Your task to perform on an android device: all mails in gmail Image 0: 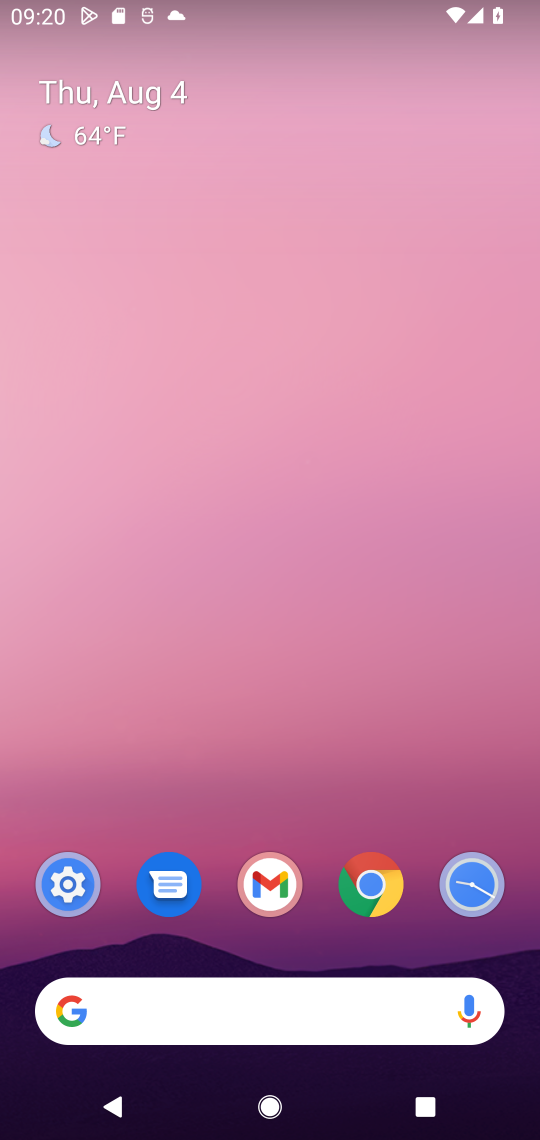
Step 0: click (240, 890)
Your task to perform on an android device: all mails in gmail Image 1: 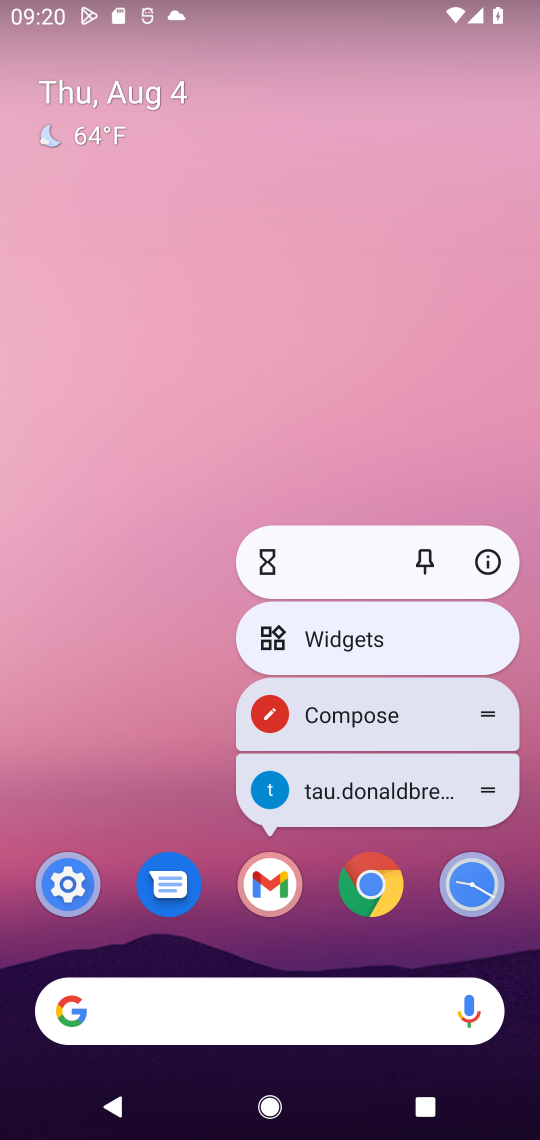
Step 1: click (240, 890)
Your task to perform on an android device: all mails in gmail Image 2: 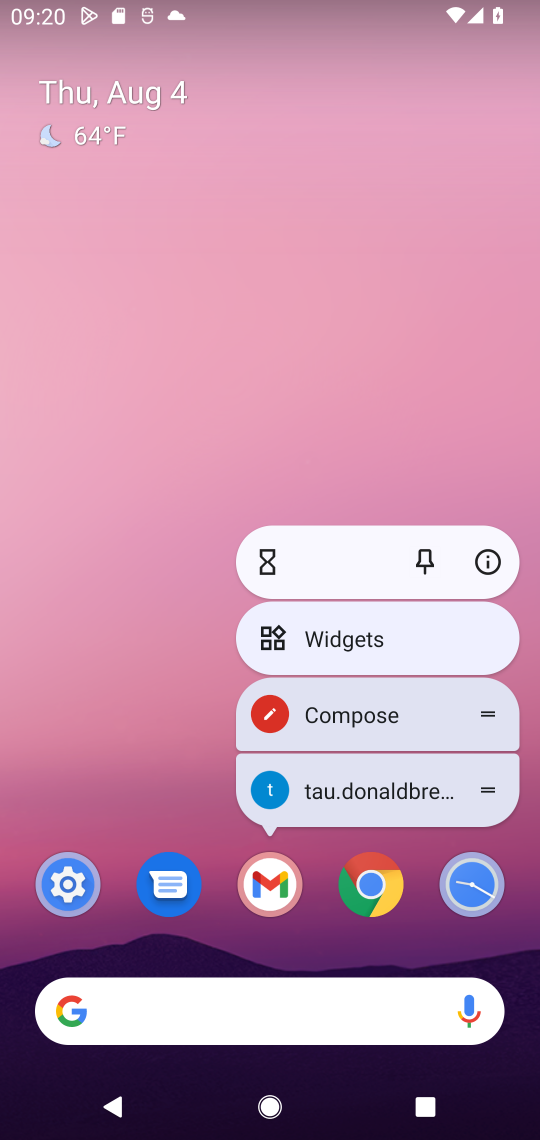
Step 2: click (240, 890)
Your task to perform on an android device: all mails in gmail Image 3: 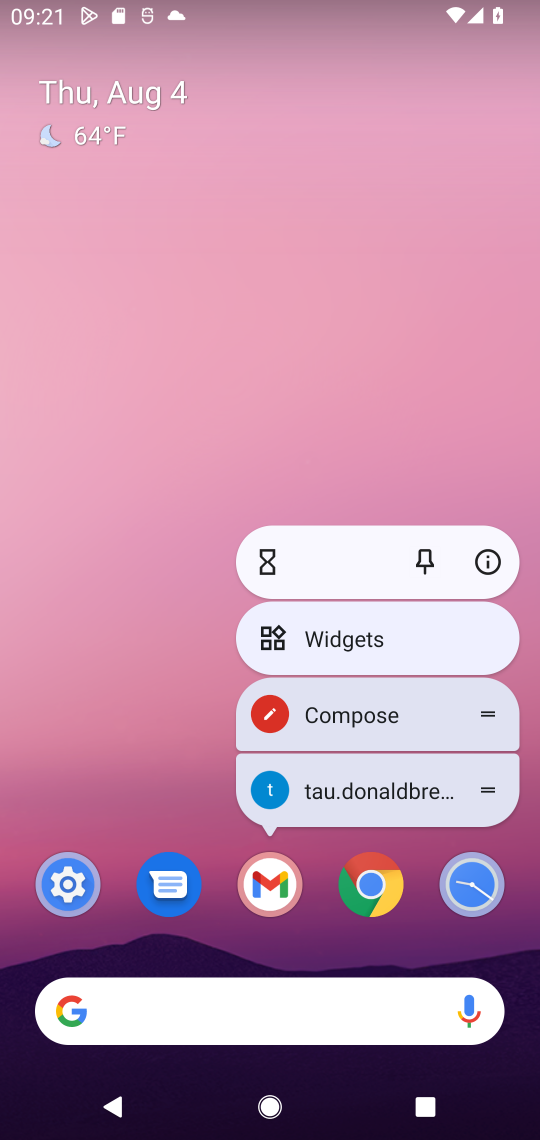
Step 3: click (253, 903)
Your task to perform on an android device: all mails in gmail Image 4: 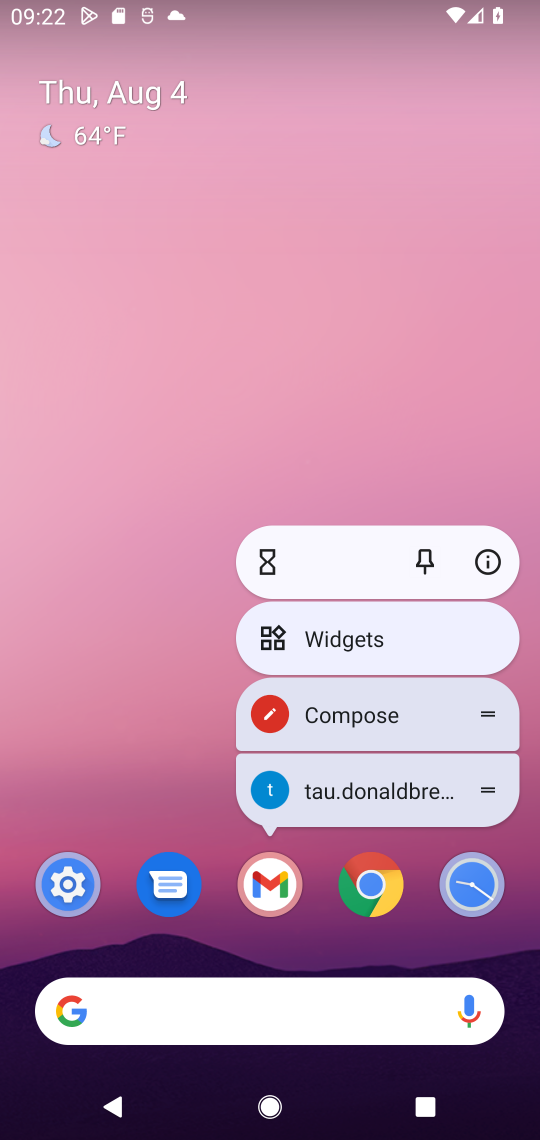
Step 4: click (244, 881)
Your task to perform on an android device: all mails in gmail Image 5: 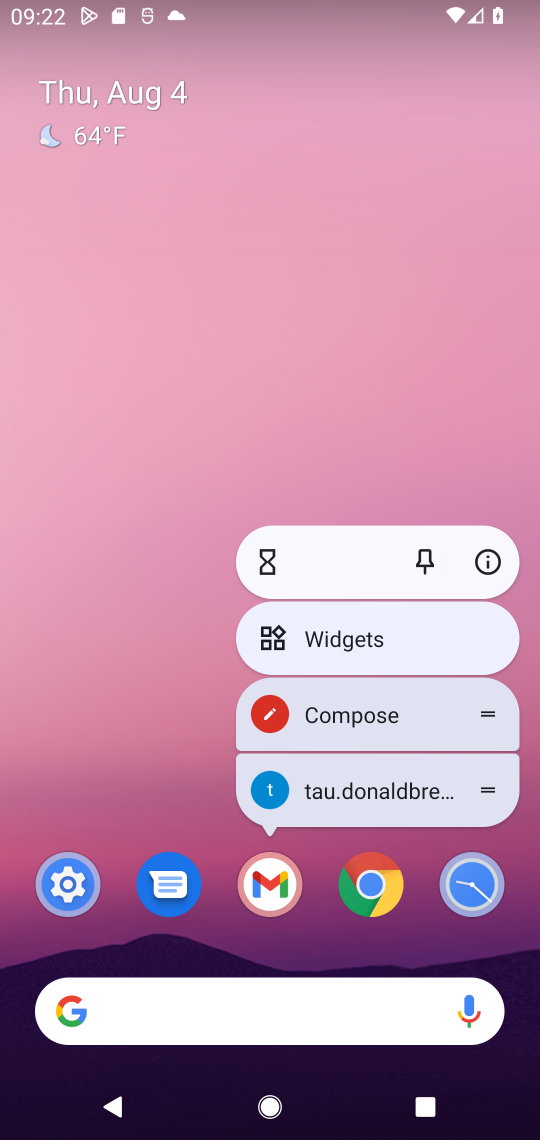
Step 5: click (371, 884)
Your task to perform on an android device: all mails in gmail Image 6: 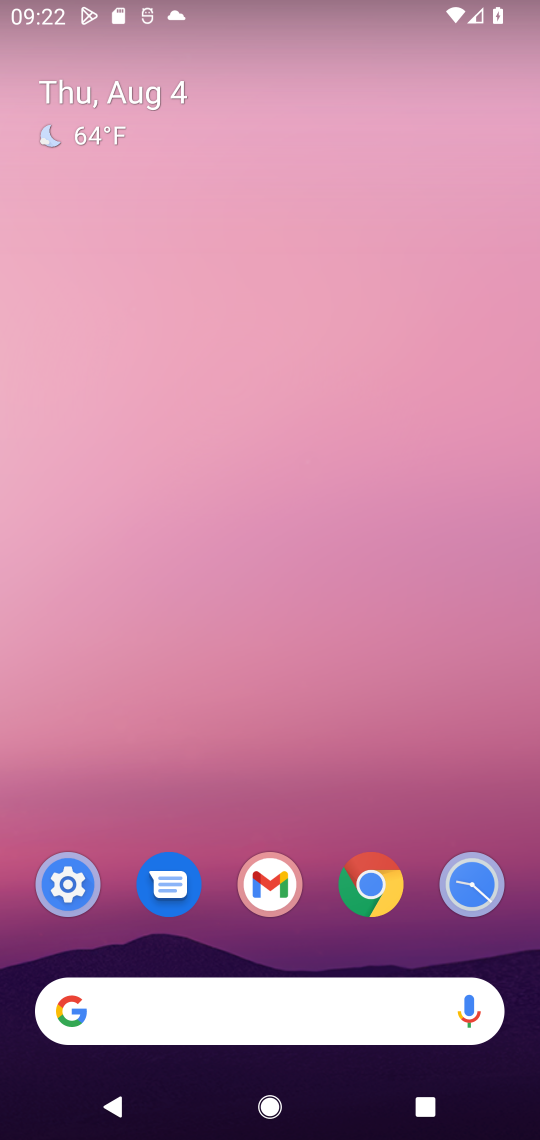
Step 6: click (371, 887)
Your task to perform on an android device: all mails in gmail Image 7: 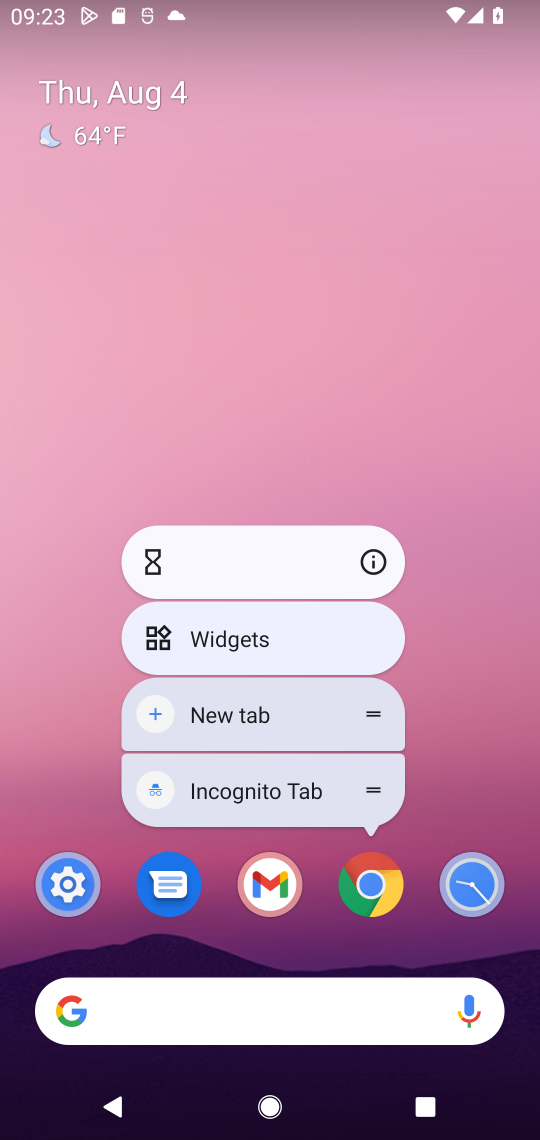
Step 7: click (279, 869)
Your task to perform on an android device: all mails in gmail Image 8: 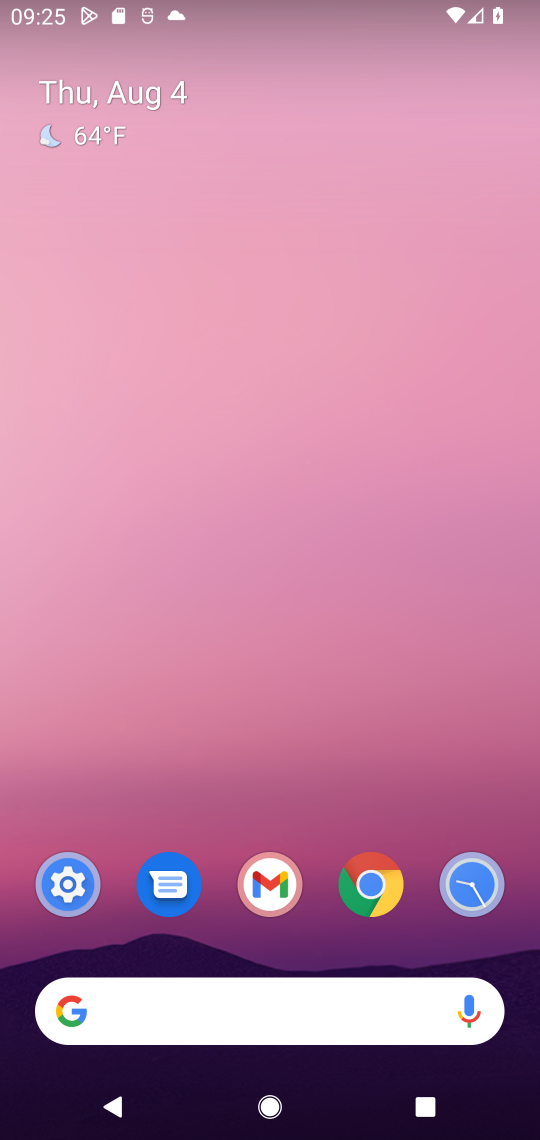
Step 8: click (281, 888)
Your task to perform on an android device: all mails in gmail Image 9: 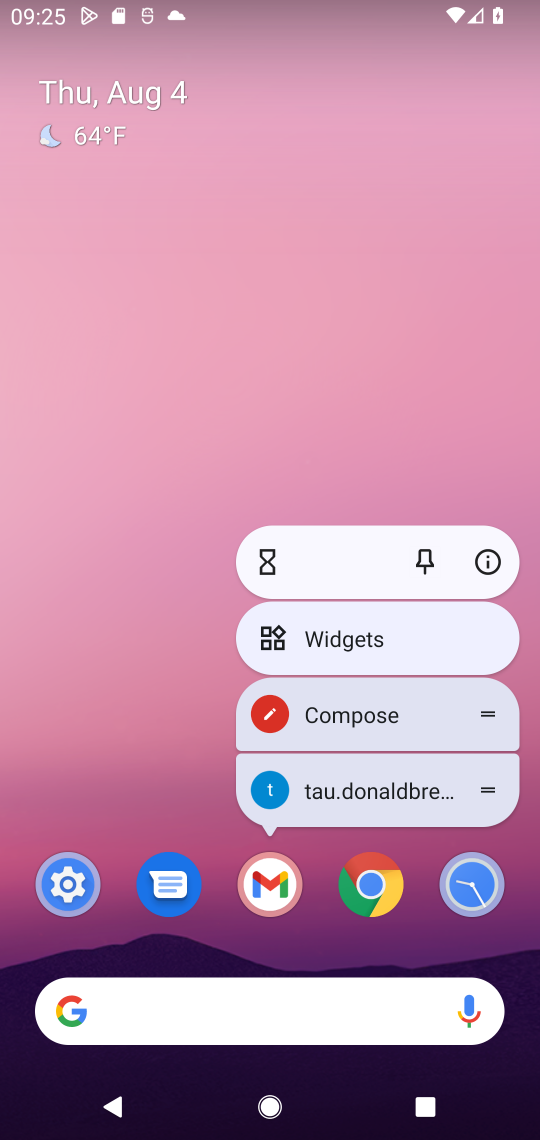
Step 9: click (265, 885)
Your task to perform on an android device: all mails in gmail Image 10: 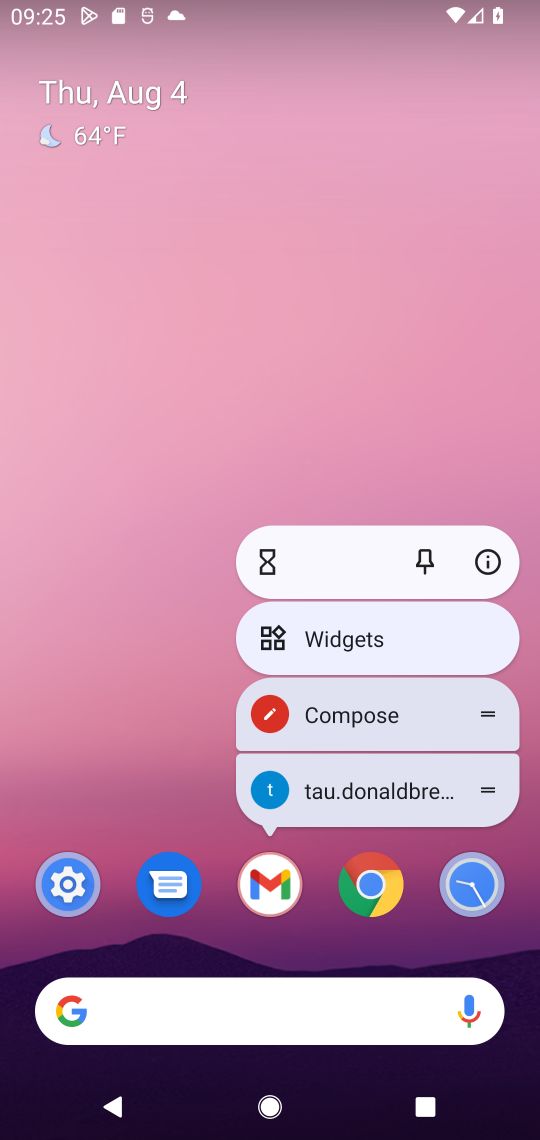
Step 10: click (265, 885)
Your task to perform on an android device: all mails in gmail Image 11: 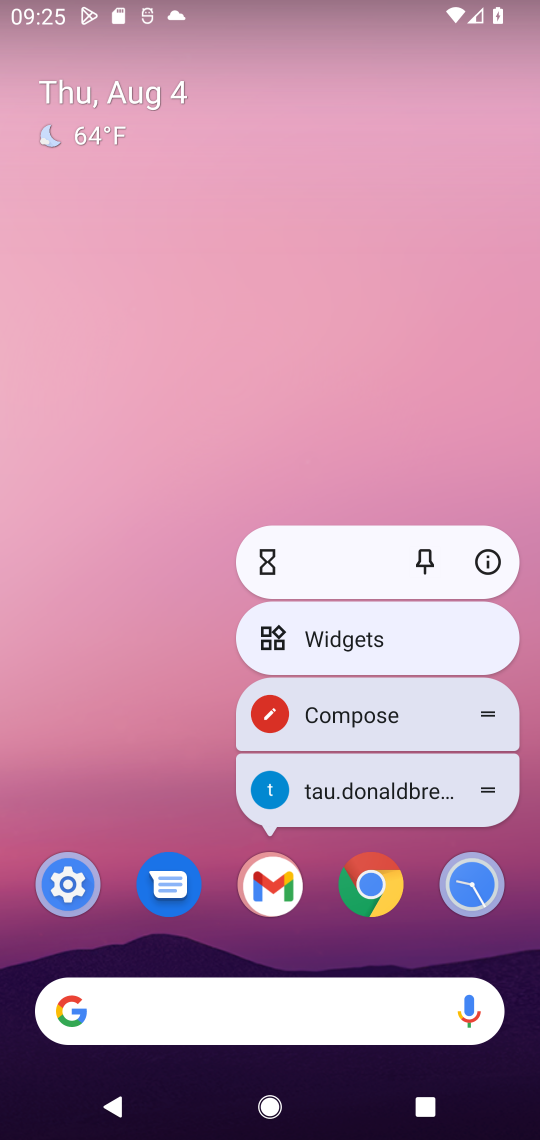
Step 11: click (268, 909)
Your task to perform on an android device: all mails in gmail Image 12: 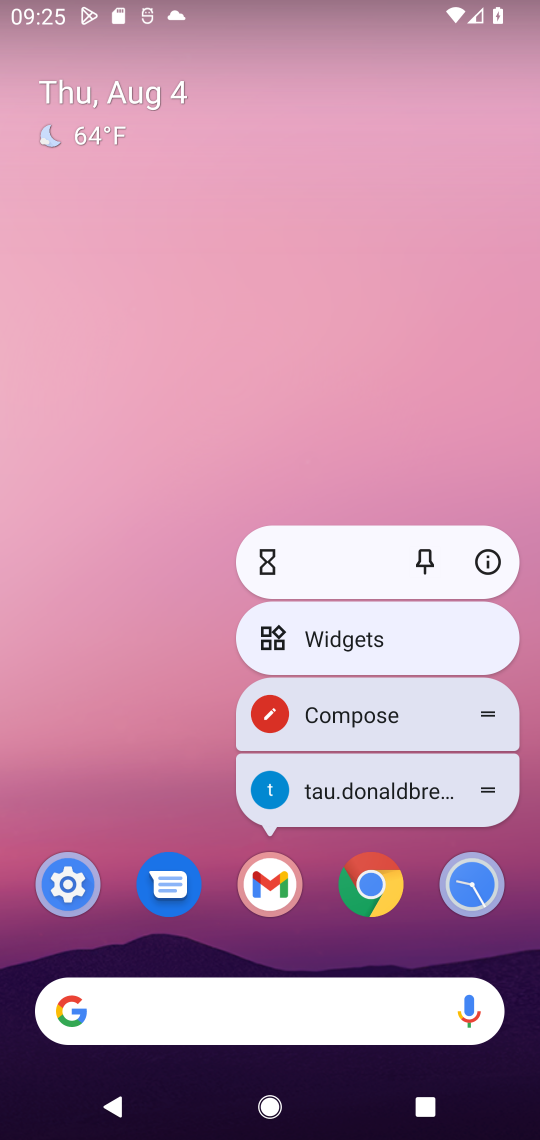
Step 12: click (268, 909)
Your task to perform on an android device: all mails in gmail Image 13: 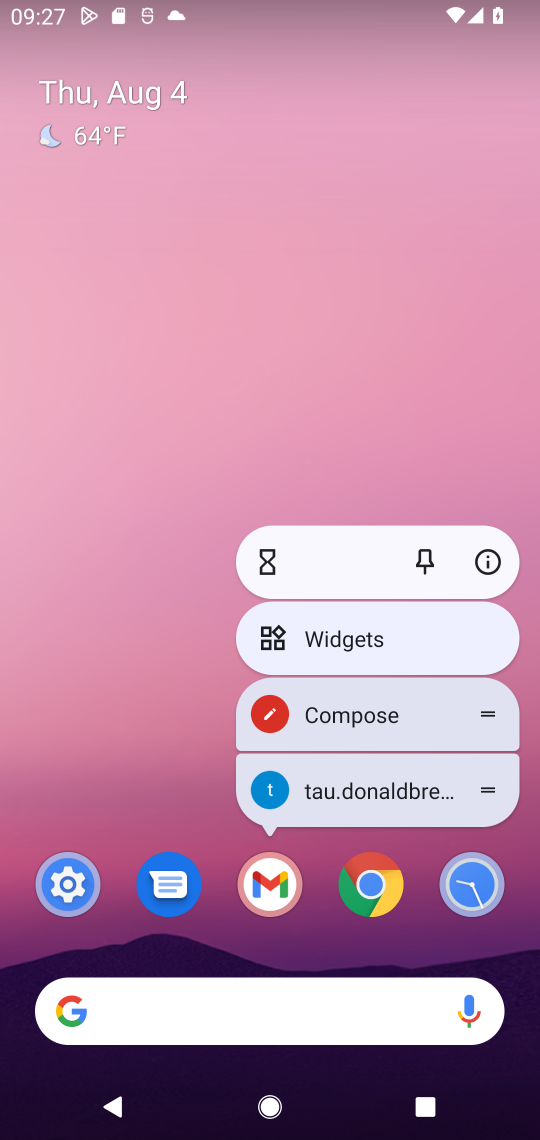
Step 13: click (266, 892)
Your task to perform on an android device: all mails in gmail Image 14: 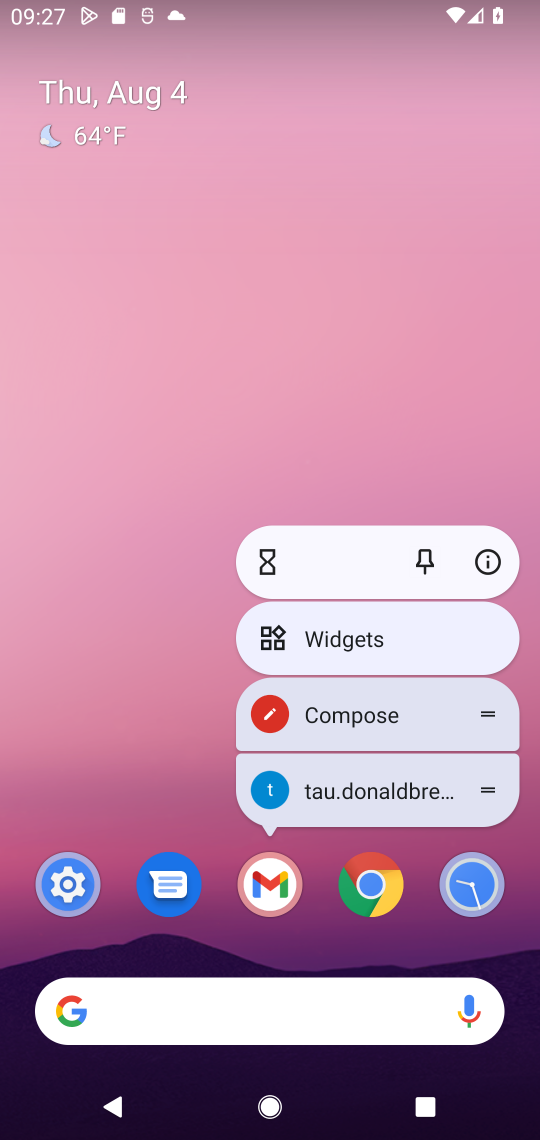
Step 14: click (264, 894)
Your task to perform on an android device: all mails in gmail Image 15: 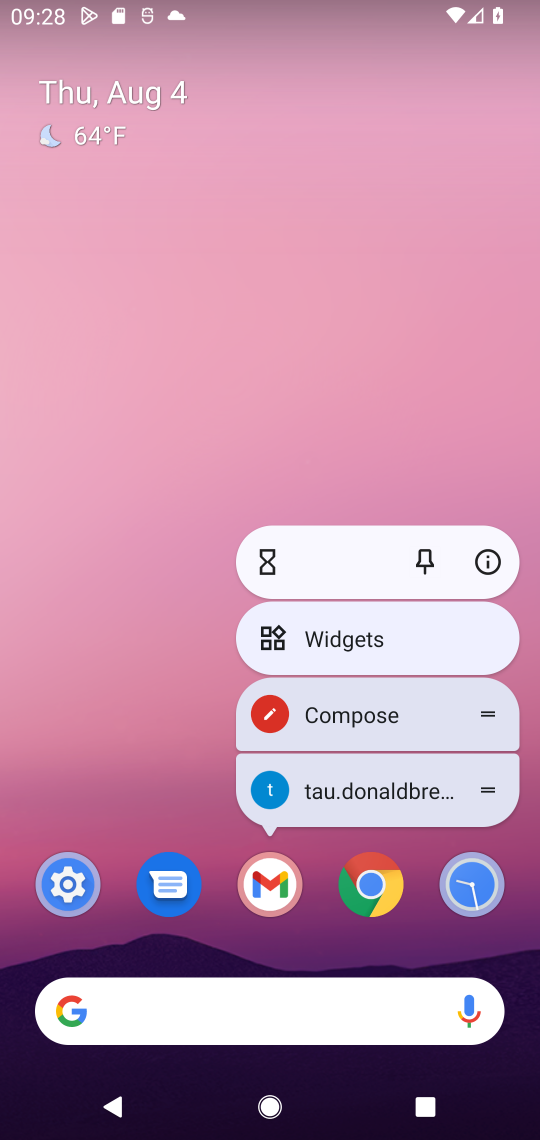
Step 15: click (264, 887)
Your task to perform on an android device: all mails in gmail Image 16: 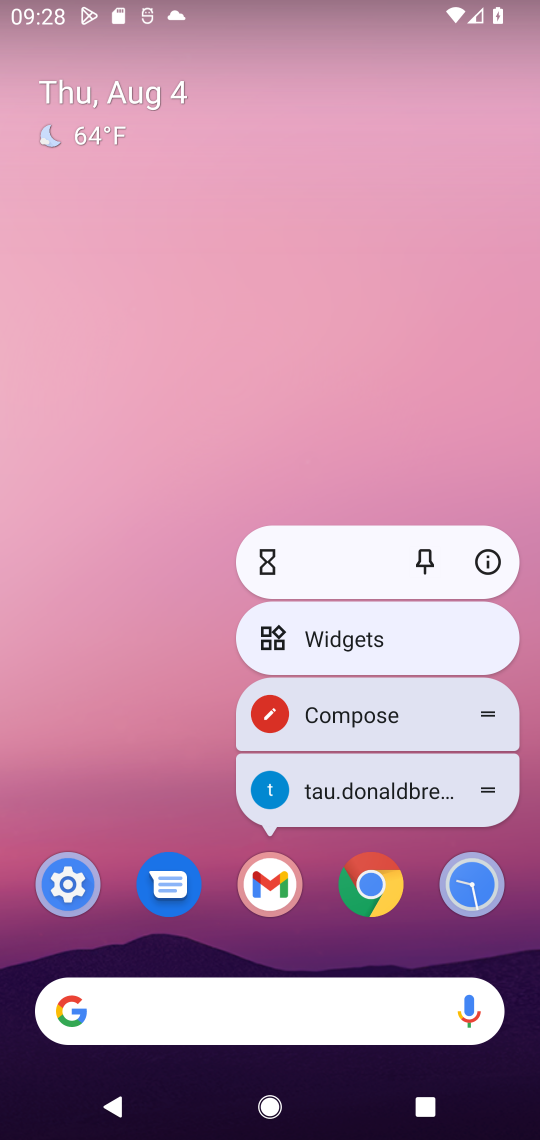
Step 16: click (264, 887)
Your task to perform on an android device: all mails in gmail Image 17: 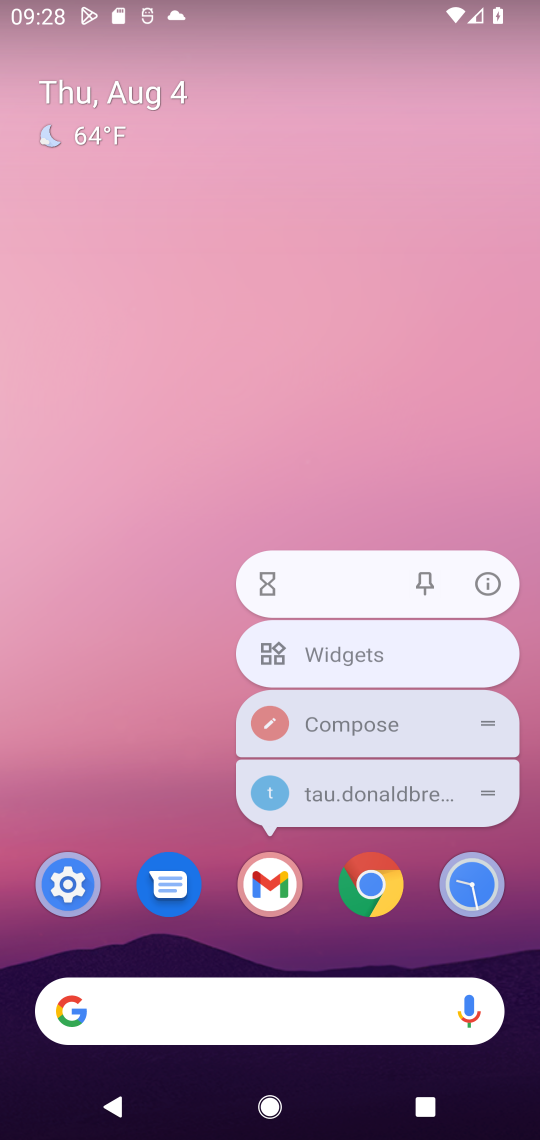
Step 17: click (264, 887)
Your task to perform on an android device: all mails in gmail Image 18: 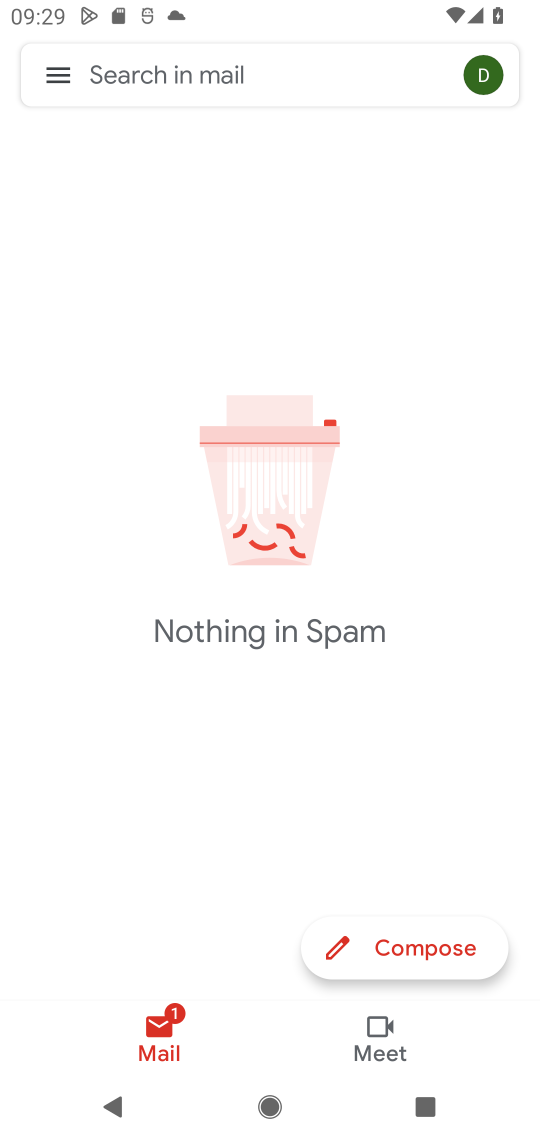
Step 18: click (71, 71)
Your task to perform on an android device: all mails in gmail Image 19: 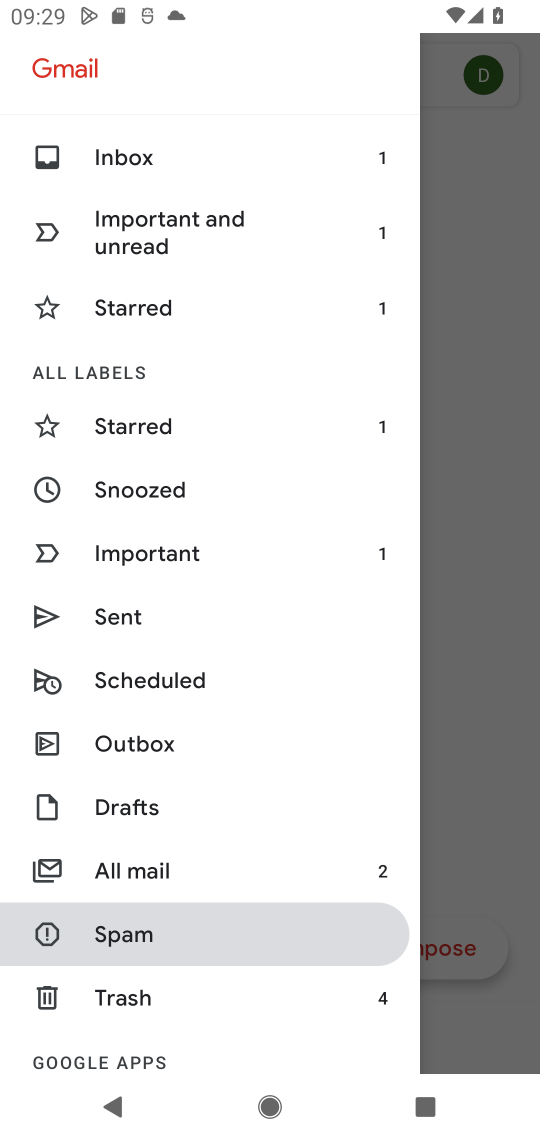
Step 19: click (168, 870)
Your task to perform on an android device: all mails in gmail Image 20: 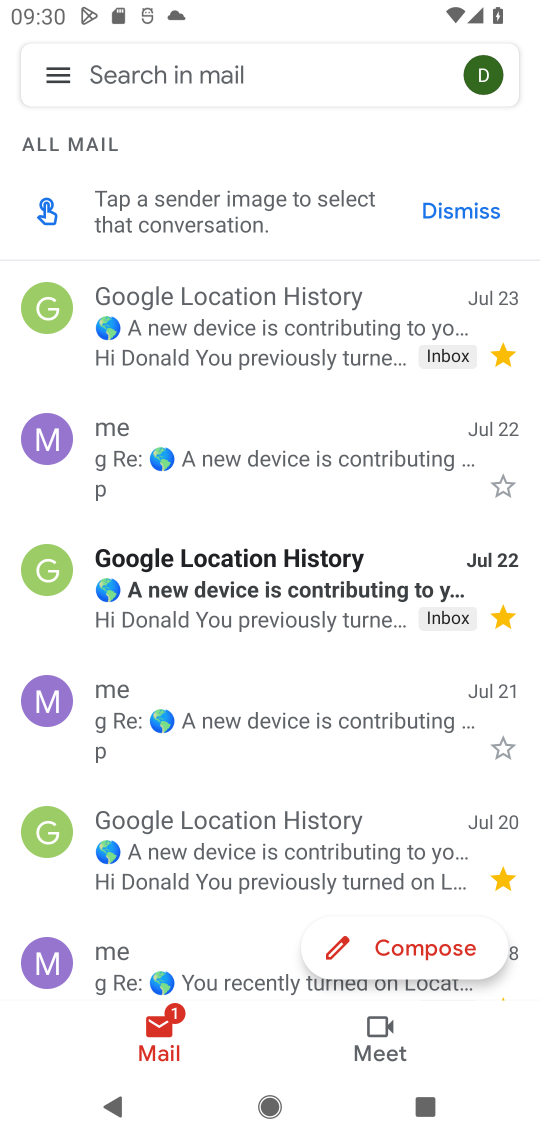
Step 20: task complete